Your task to perform on an android device: turn on location history Image 0: 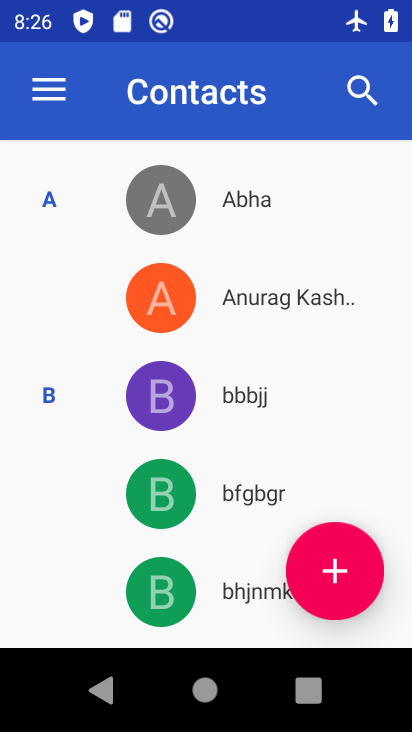
Step 0: press home button
Your task to perform on an android device: turn on location history Image 1: 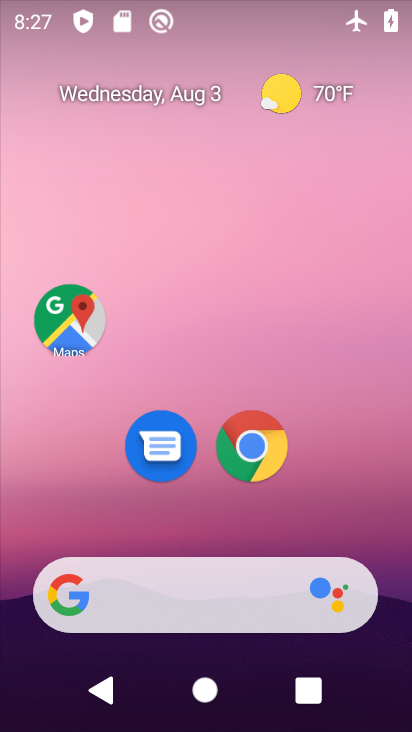
Step 1: drag from (368, 657) to (319, 95)
Your task to perform on an android device: turn on location history Image 2: 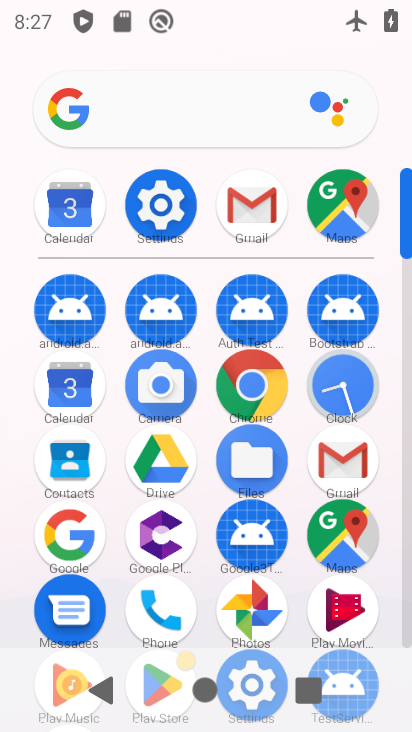
Step 2: click (169, 201)
Your task to perform on an android device: turn on location history Image 3: 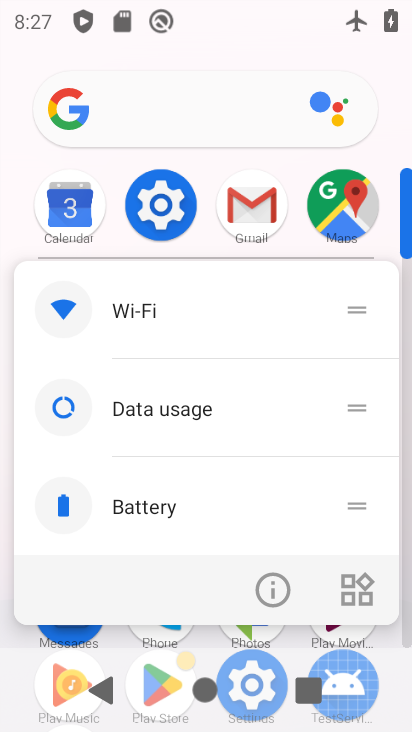
Step 3: click (169, 201)
Your task to perform on an android device: turn on location history Image 4: 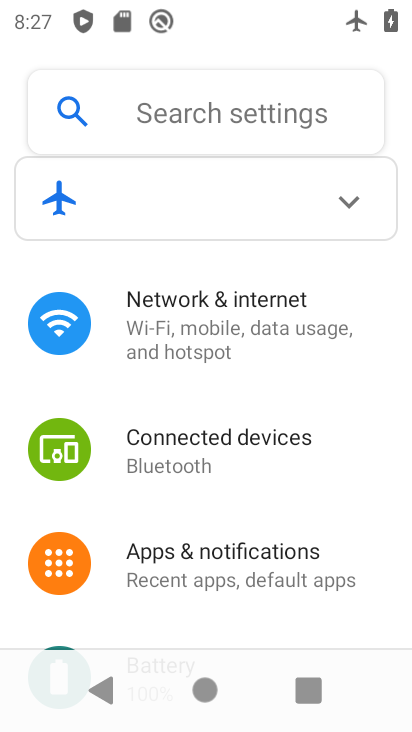
Step 4: click (160, 312)
Your task to perform on an android device: turn on location history Image 5: 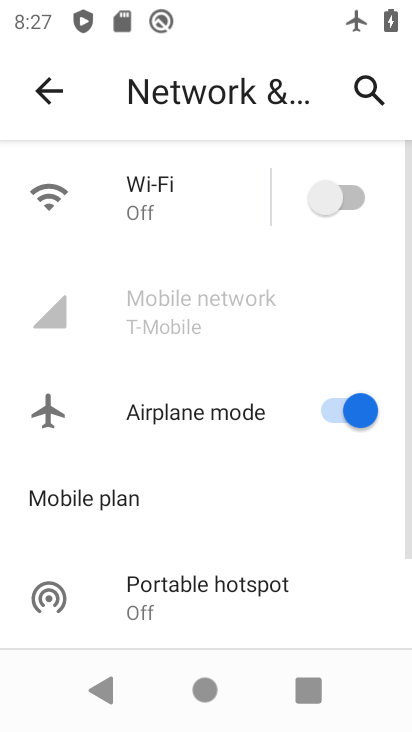
Step 5: click (340, 184)
Your task to perform on an android device: turn on location history Image 6: 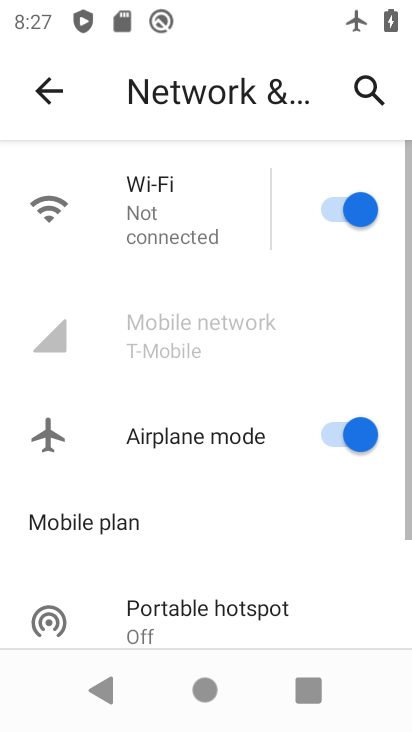
Step 6: click (331, 409)
Your task to perform on an android device: turn on location history Image 7: 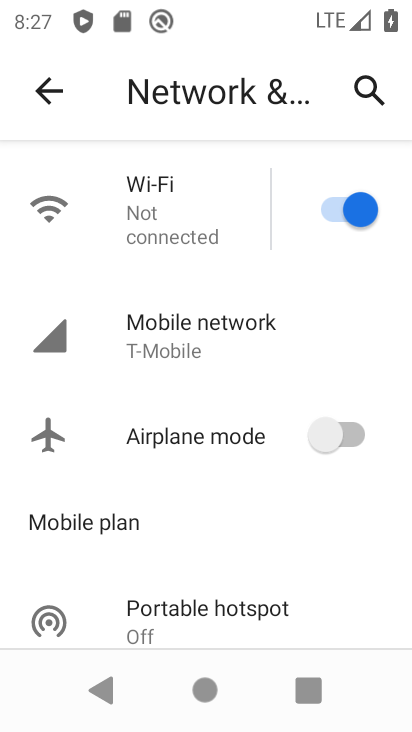
Step 7: click (32, 89)
Your task to perform on an android device: turn on location history Image 8: 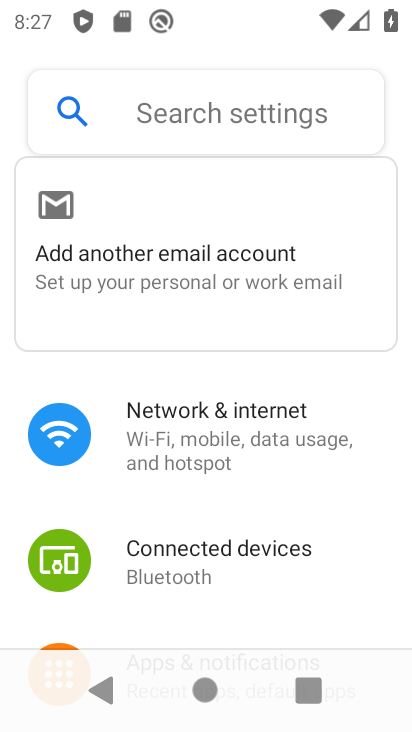
Step 8: drag from (237, 614) to (267, 182)
Your task to perform on an android device: turn on location history Image 9: 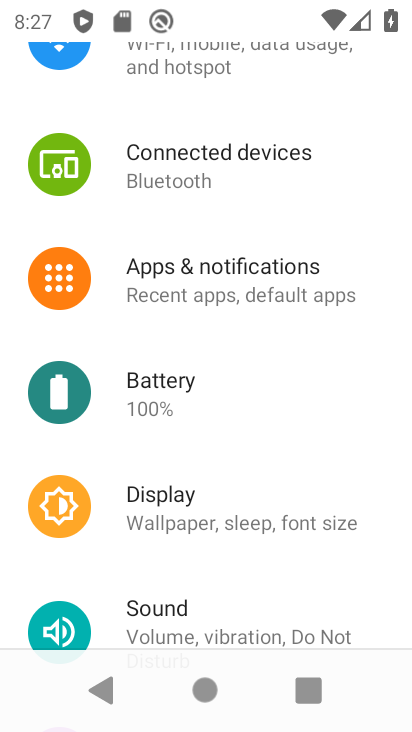
Step 9: drag from (205, 611) to (241, 300)
Your task to perform on an android device: turn on location history Image 10: 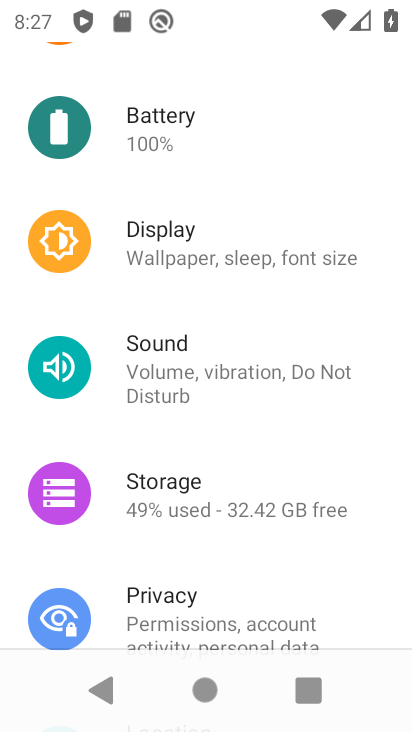
Step 10: drag from (196, 603) to (245, 229)
Your task to perform on an android device: turn on location history Image 11: 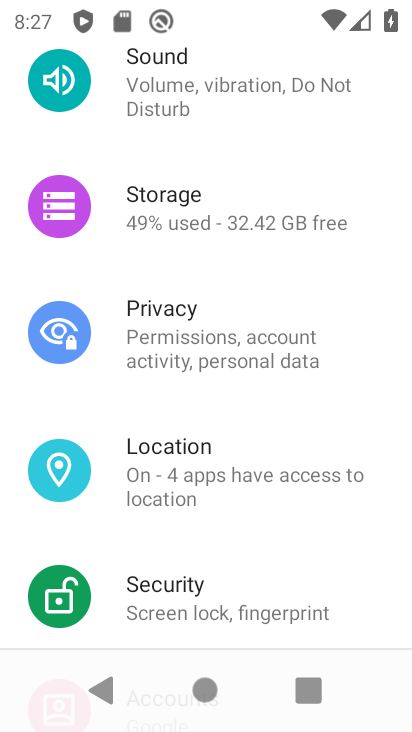
Step 11: click (159, 464)
Your task to perform on an android device: turn on location history Image 12: 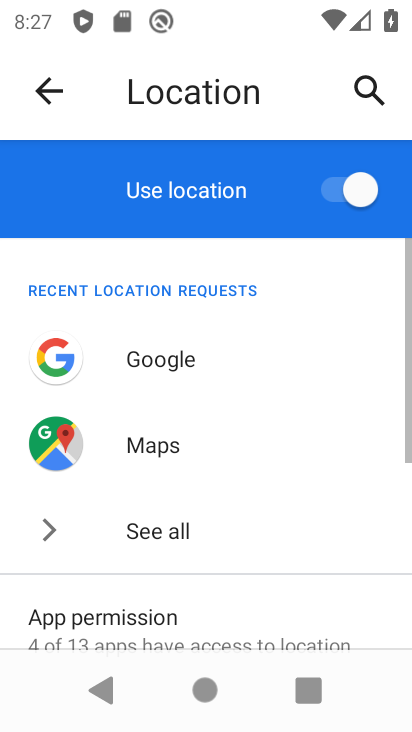
Step 12: drag from (253, 604) to (262, 197)
Your task to perform on an android device: turn on location history Image 13: 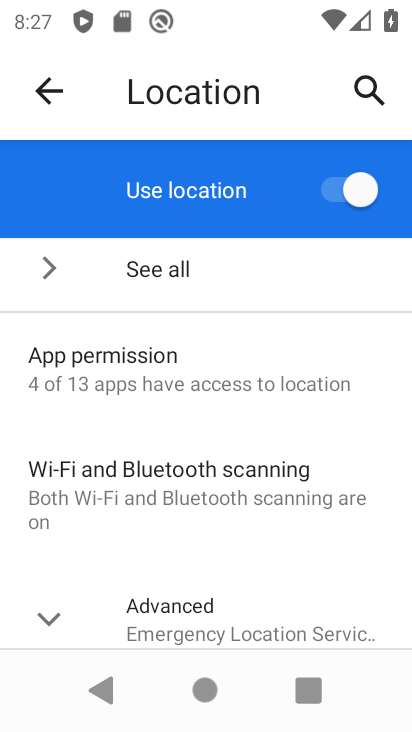
Step 13: click (44, 618)
Your task to perform on an android device: turn on location history Image 14: 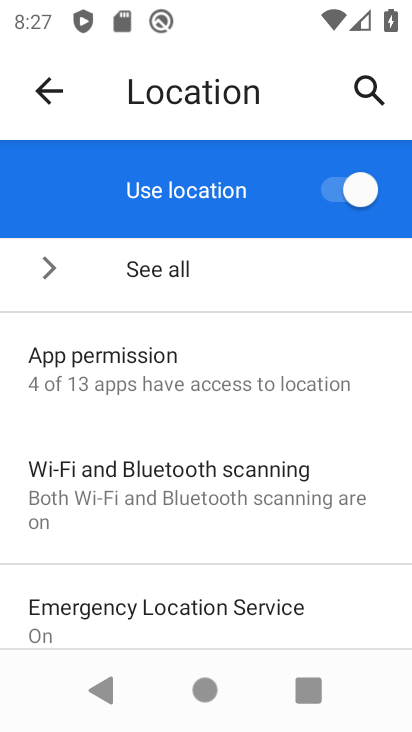
Step 14: drag from (339, 622) to (320, 228)
Your task to perform on an android device: turn on location history Image 15: 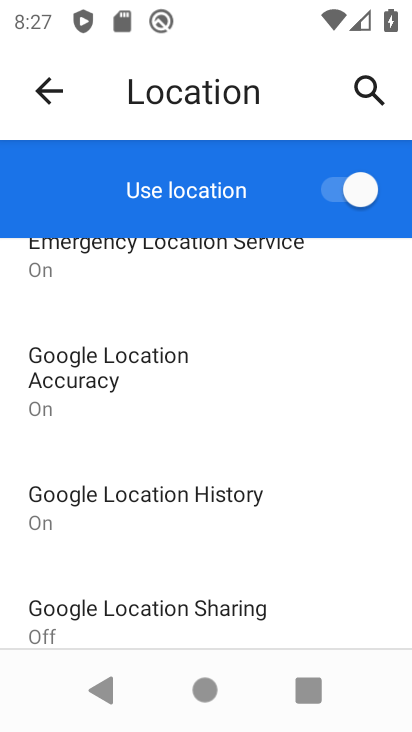
Step 15: click (178, 497)
Your task to perform on an android device: turn on location history Image 16: 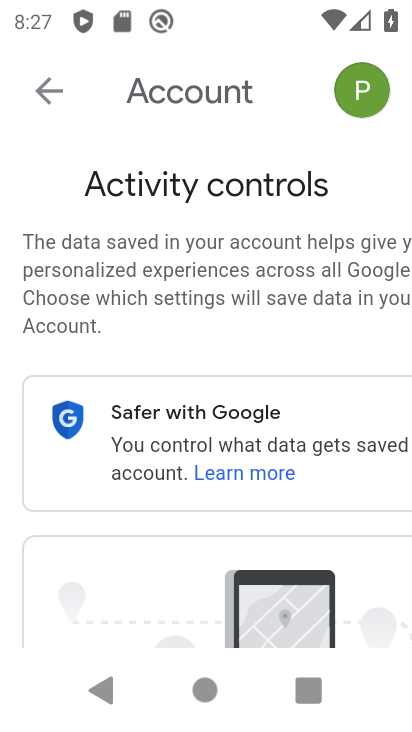
Step 16: task complete